Your task to perform on an android device: Go to privacy settings Image 0: 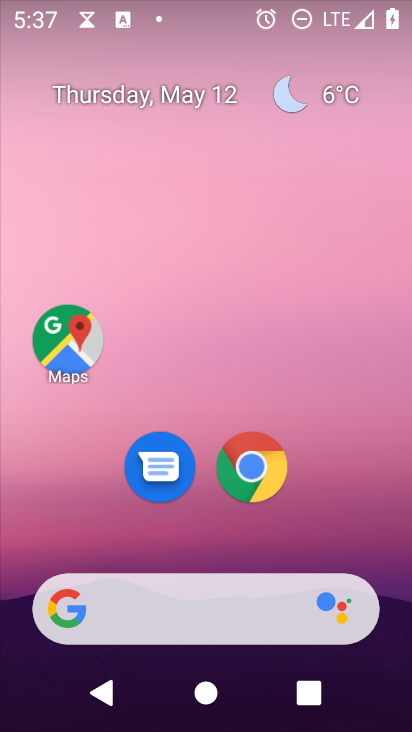
Step 0: drag from (250, 601) to (296, 43)
Your task to perform on an android device: Go to privacy settings Image 1: 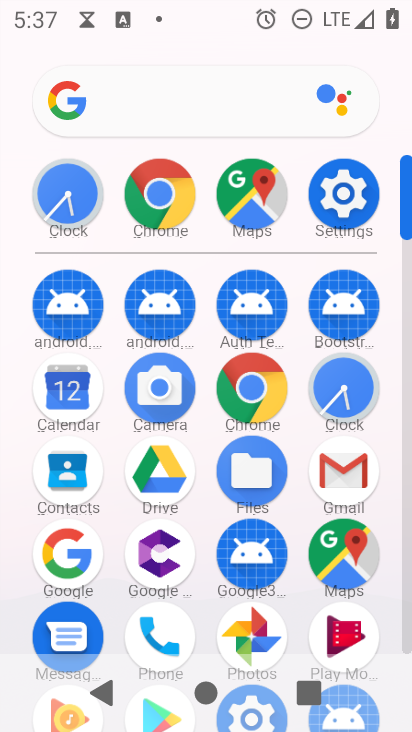
Step 1: click (346, 188)
Your task to perform on an android device: Go to privacy settings Image 2: 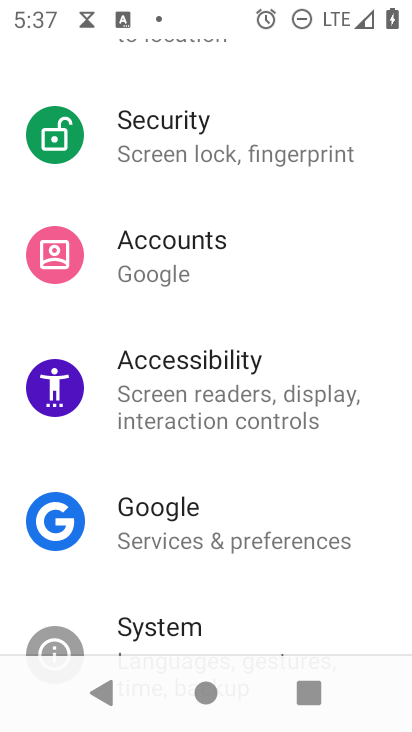
Step 2: drag from (244, 207) to (322, 595)
Your task to perform on an android device: Go to privacy settings Image 3: 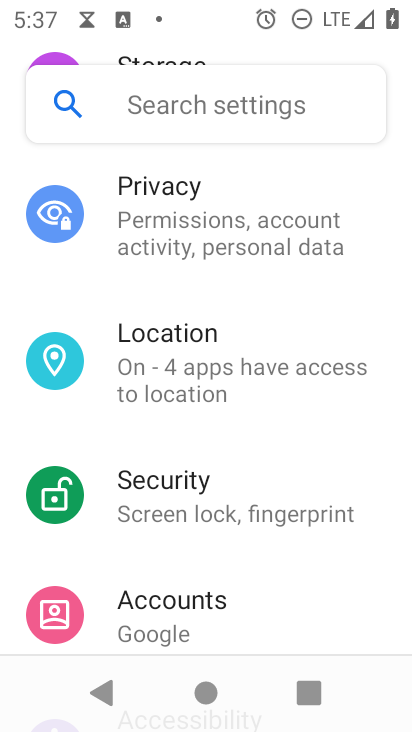
Step 3: click (213, 231)
Your task to perform on an android device: Go to privacy settings Image 4: 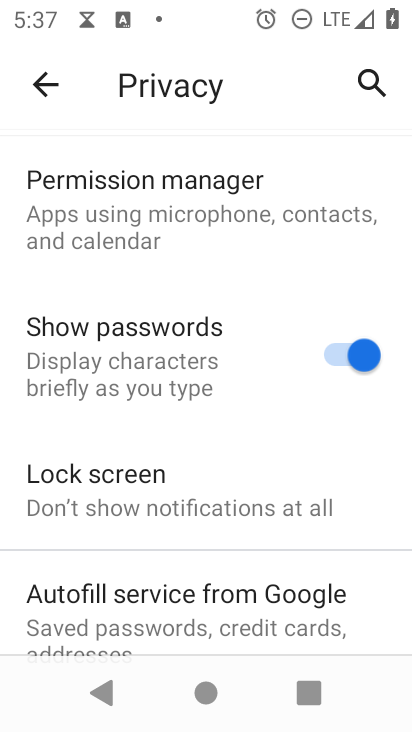
Step 4: task complete